Your task to perform on an android device: Go to location settings Image 0: 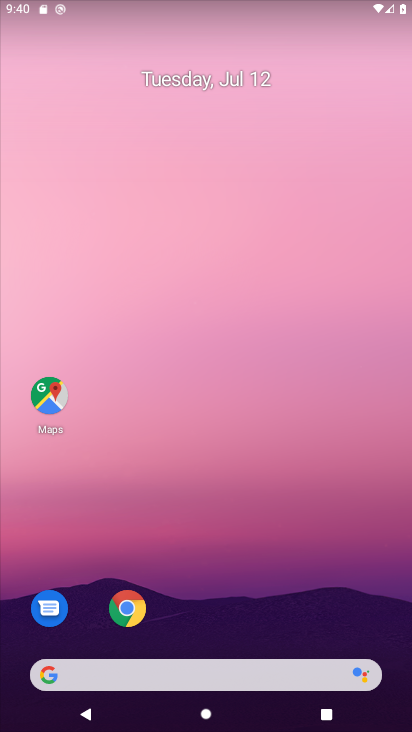
Step 0: drag from (245, 631) to (243, 2)
Your task to perform on an android device: Go to location settings Image 1: 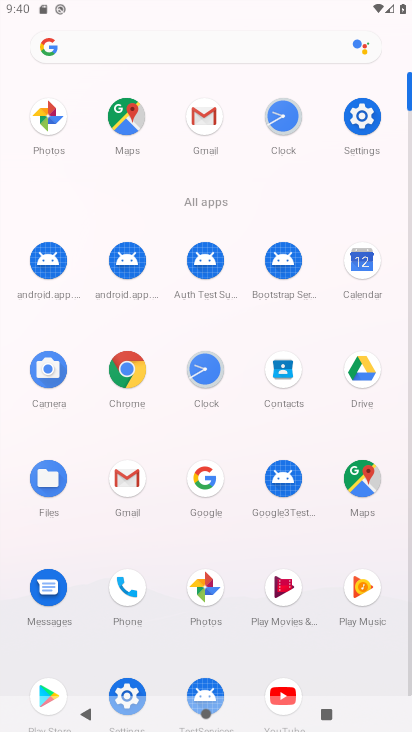
Step 1: click (364, 130)
Your task to perform on an android device: Go to location settings Image 2: 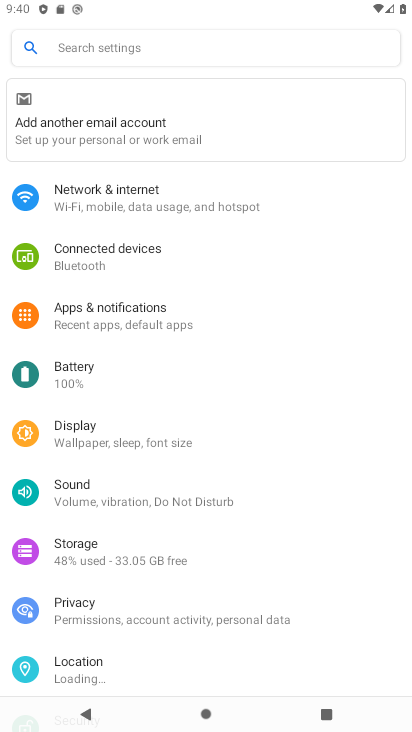
Step 2: click (103, 664)
Your task to perform on an android device: Go to location settings Image 3: 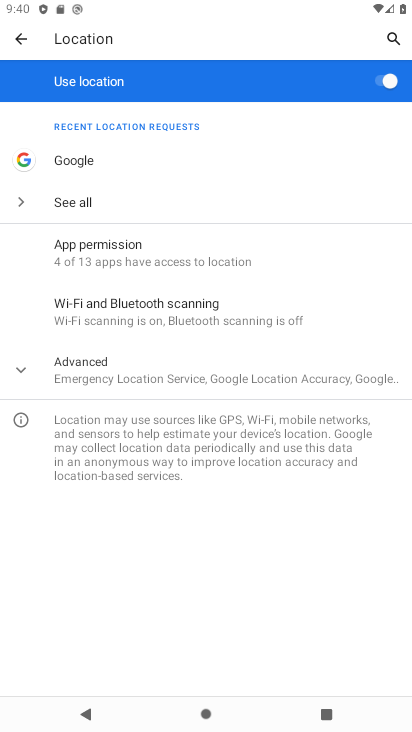
Step 3: task complete